Your task to perform on an android device: Search for Italian restaurants on Maps Image 0: 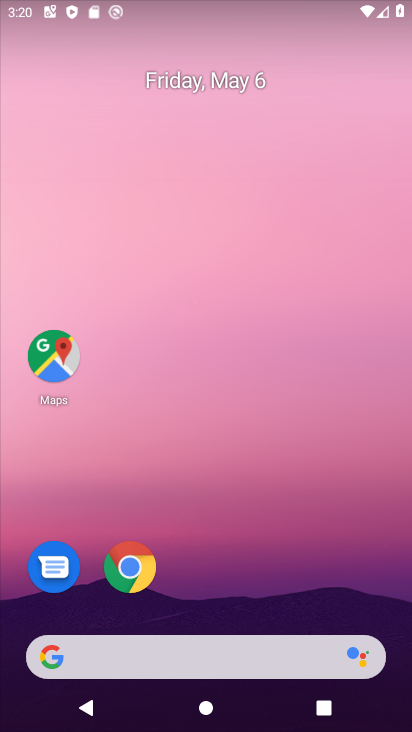
Step 0: drag from (127, 616) to (210, 141)
Your task to perform on an android device: Search for Italian restaurants on Maps Image 1: 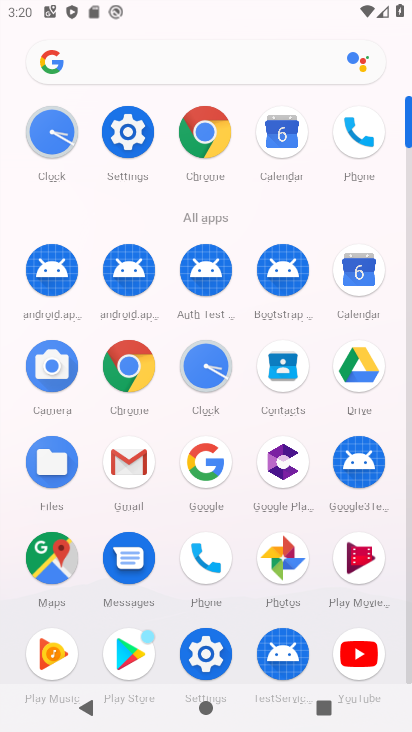
Step 1: drag from (246, 513) to (288, 181)
Your task to perform on an android device: Search for Italian restaurants on Maps Image 2: 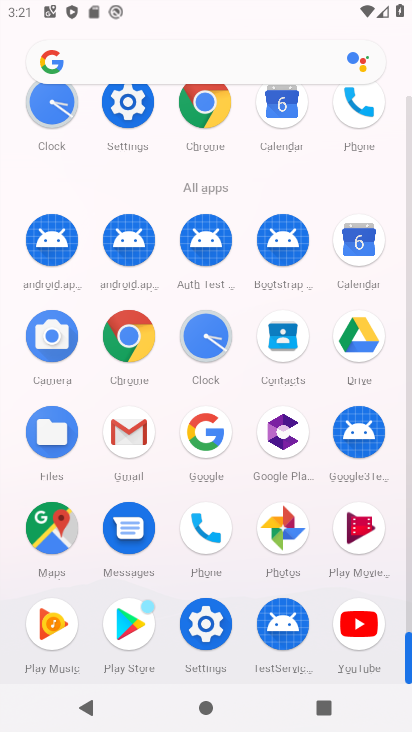
Step 2: click (52, 534)
Your task to perform on an android device: Search for Italian restaurants on Maps Image 3: 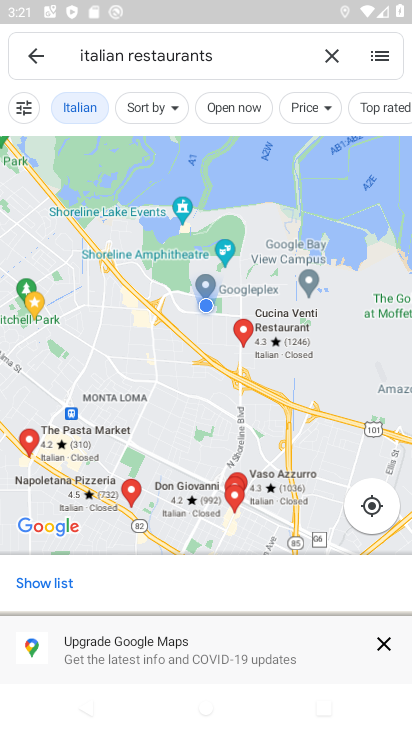
Step 3: click (228, 60)
Your task to perform on an android device: Search for Italian restaurants on Maps Image 4: 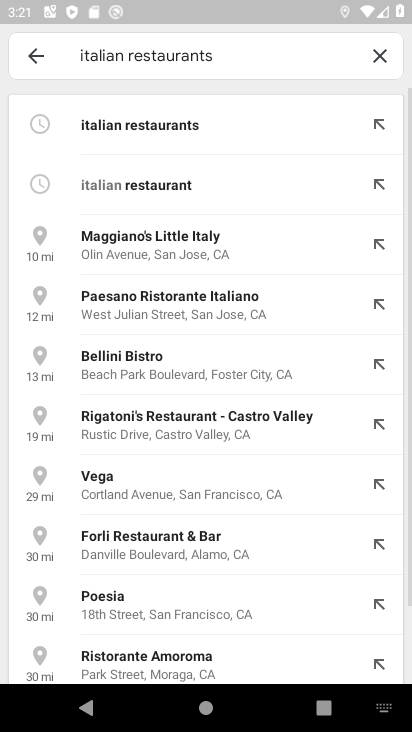
Step 4: click (122, 126)
Your task to perform on an android device: Search for Italian restaurants on Maps Image 5: 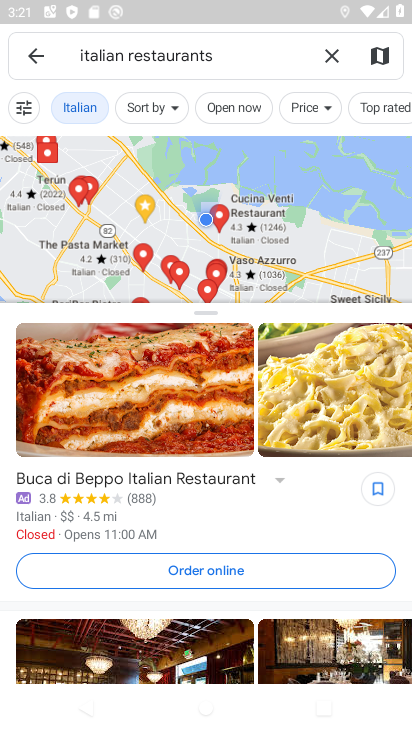
Step 5: task complete